Your task to perform on an android device: turn on bluetooth scan Image 0: 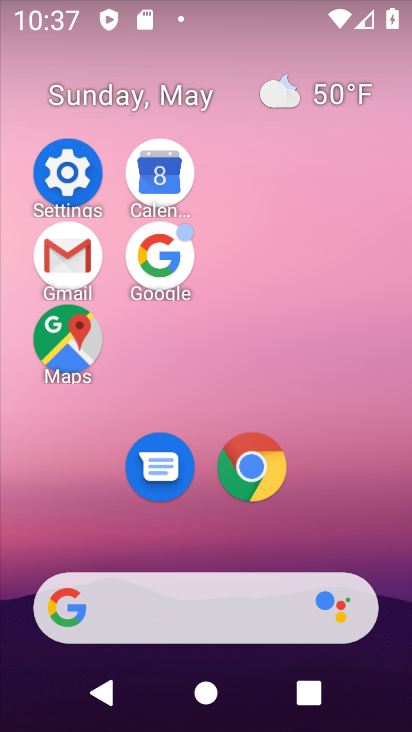
Step 0: click (54, 168)
Your task to perform on an android device: turn on bluetooth scan Image 1: 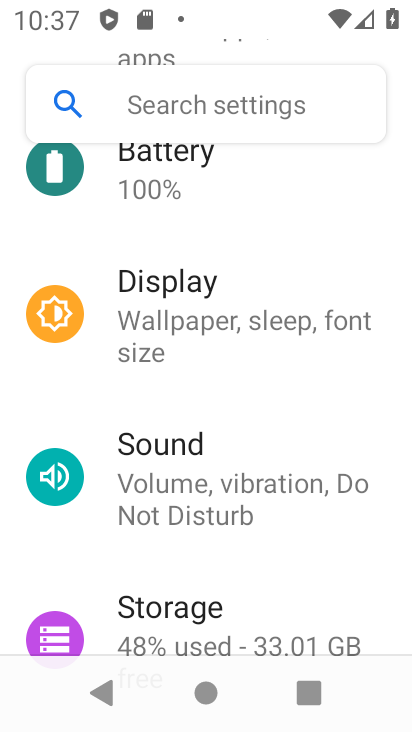
Step 1: drag from (261, 547) to (306, 205)
Your task to perform on an android device: turn on bluetooth scan Image 2: 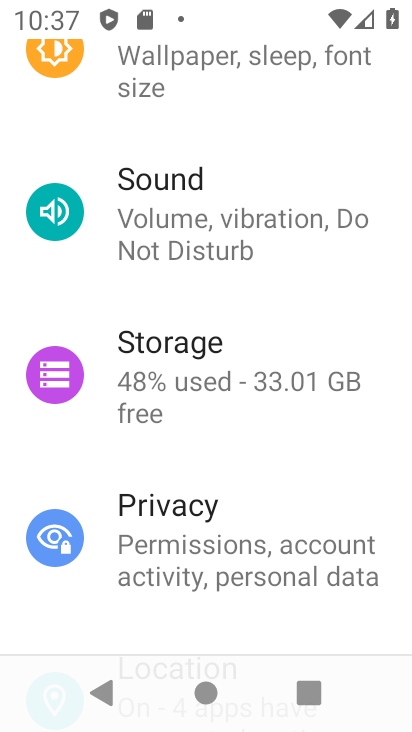
Step 2: drag from (263, 478) to (329, 152)
Your task to perform on an android device: turn on bluetooth scan Image 3: 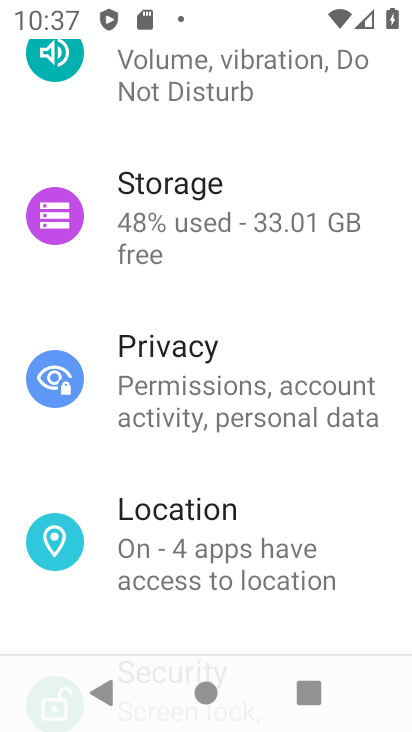
Step 3: click (254, 515)
Your task to perform on an android device: turn on bluetooth scan Image 4: 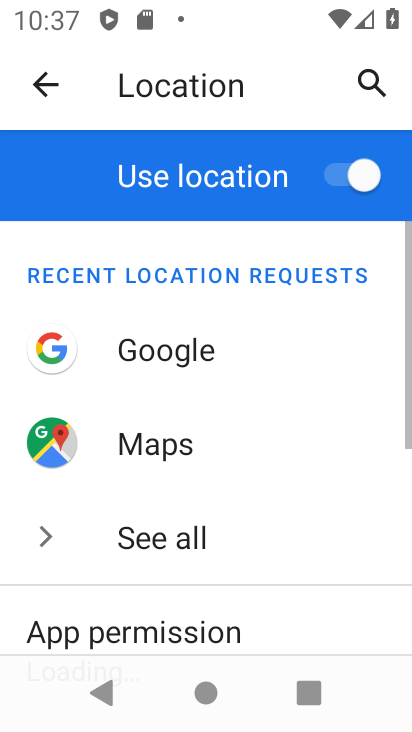
Step 4: drag from (252, 521) to (319, 194)
Your task to perform on an android device: turn on bluetooth scan Image 5: 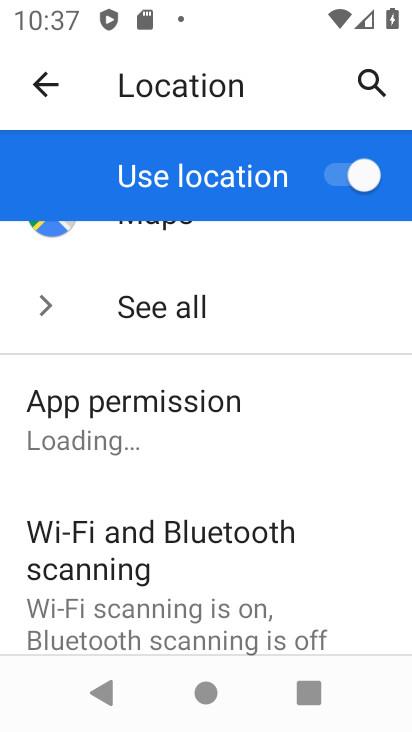
Step 5: click (239, 520)
Your task to perform on an android device: turn on bluetooth scan Image 6: 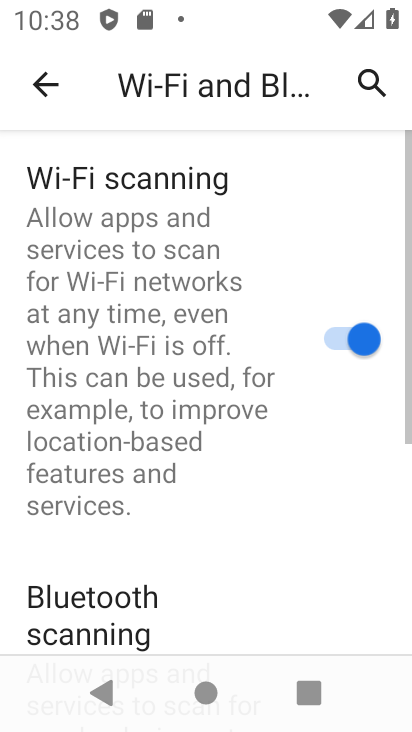
Step 6: drag from (277, 540) to (336, 189)
Your task to perform on an android device: turn on bluetooth scan Image 7: 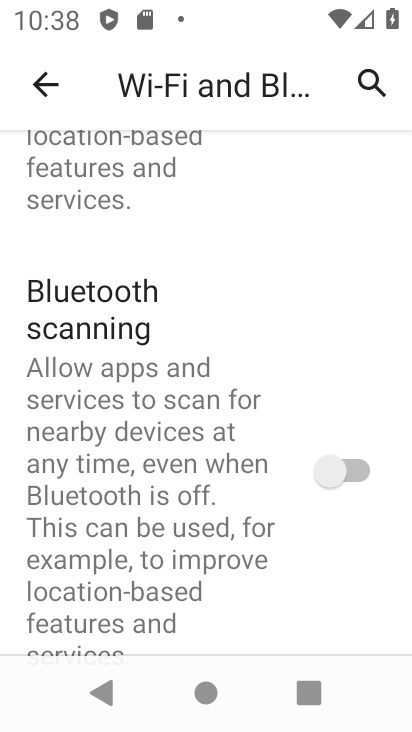
Step 7: click (338, 456)
Your task to perform on an android device: turn on bluetooth scan Image 8: 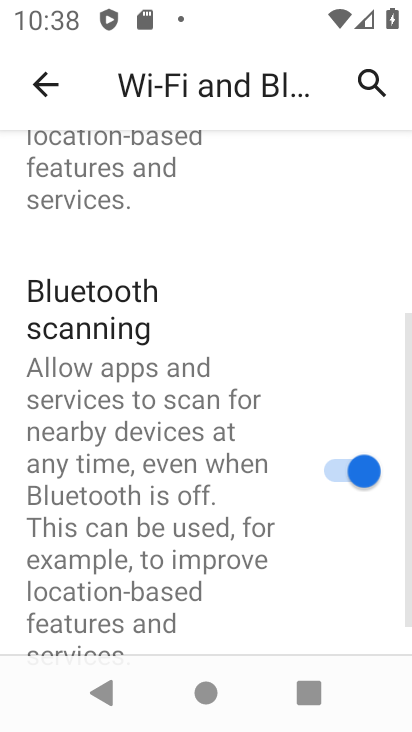
Step 8: task complete